Your task to perform on an android device: make emails show in primary in the gmail app Image 0: 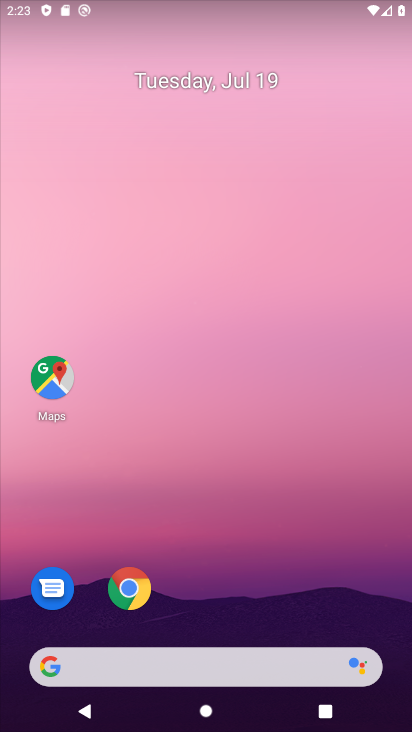
Step 0: drag from (198, 623) to (170, 263)
Your task to perform on an android device: make emails show in primary in the gmail app Image 1: 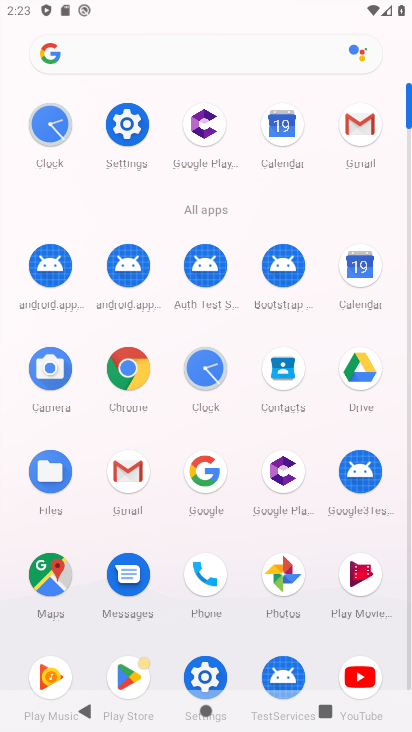
Step 1: click (356, 129)
Your task to perform on an android device: make emails show in primary in the gmail app Image 2: 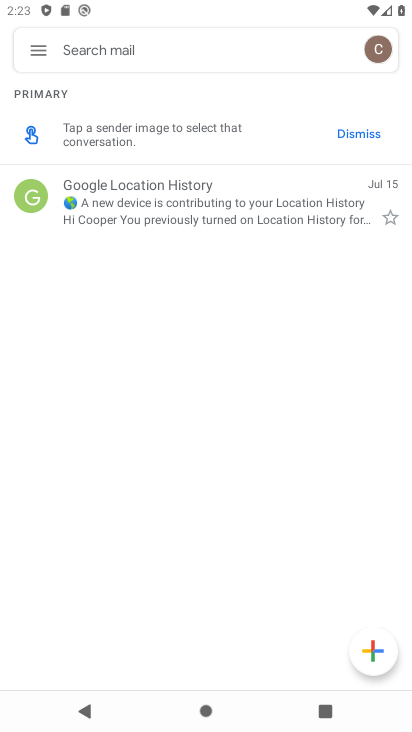
Step 2: click (35, 54)
Your task to perform on an android device: make emails show in primary in the gmail app Image 3: 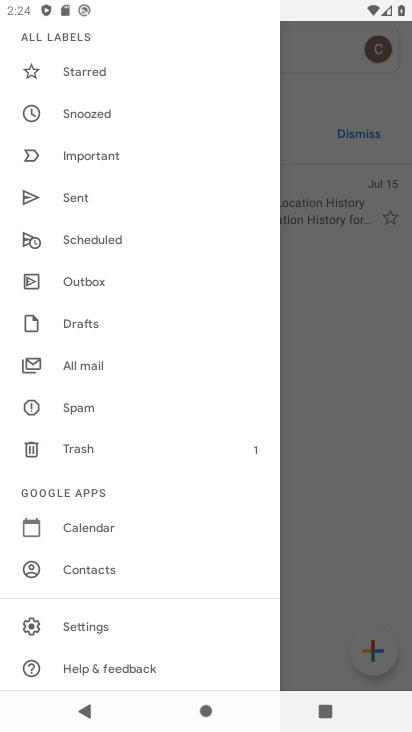
Step 3: click (75, 633)
Your task to perform on an android device: make emails show in primary in the gmail app Image 4: 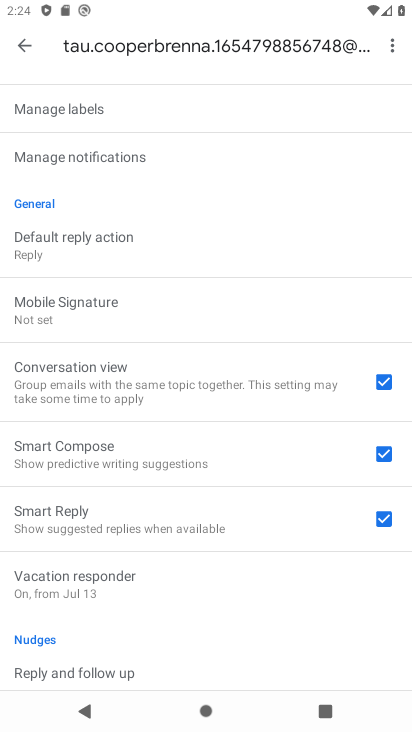
Step 4: drag from (177, 588) to (182, 326)
Your task to perform on an android device: make emails show in primary in the gmail app Image 5: 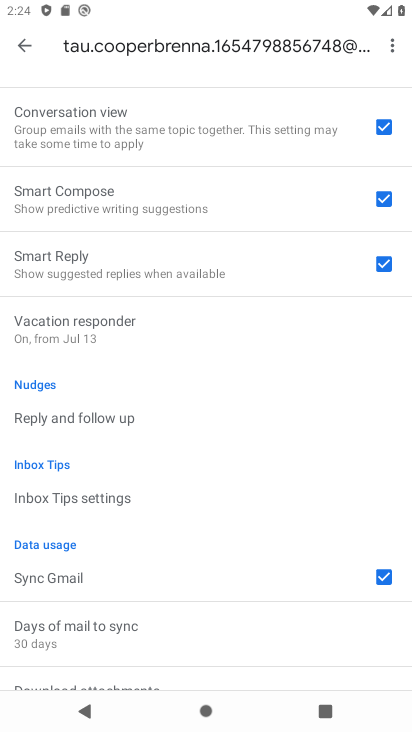
Step 5: drag from (181, 452) to (154, 544)
Your task to perform on an android device: make emails show in primary in the gmail app Image 6: 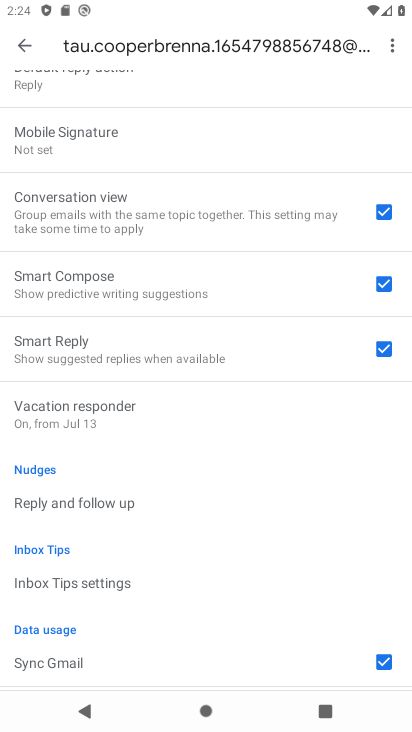
Step 6: drag from (167, 219) to (122, 579)
Your task to perform on an android device: make emails show in primary in the gmail app Image 7: 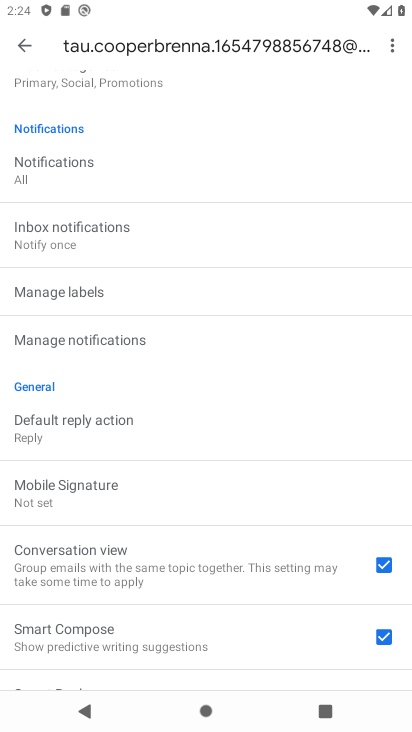
Step 7: drag from (87, 297) to (77, 434)
Your task to perform on an android device: make emails show in primary in the gmail app Image 8: 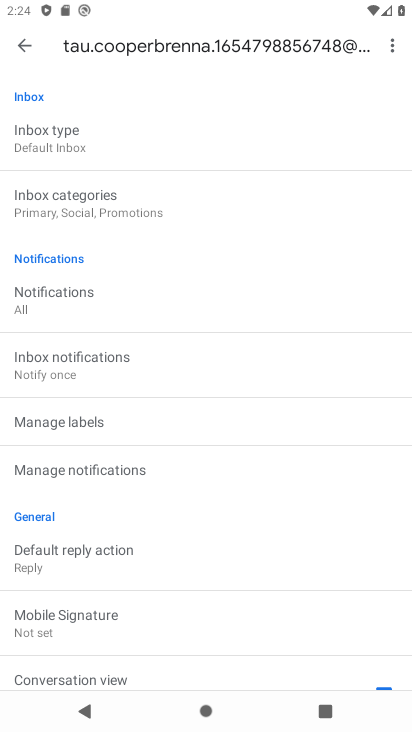
Step 8: click (81, 200)
Your task to perform on an android device: make emails show in primary in the gmail app Image 9: 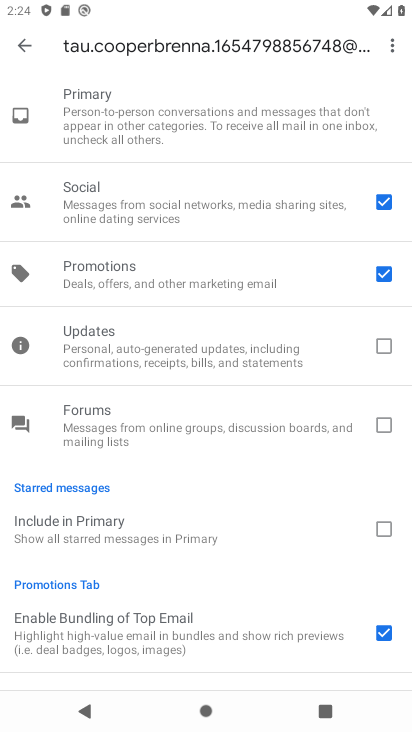
Step 9: click (387, 204)
Your task to perform on an android device: make emails show in primary in the gmail app Image 10: 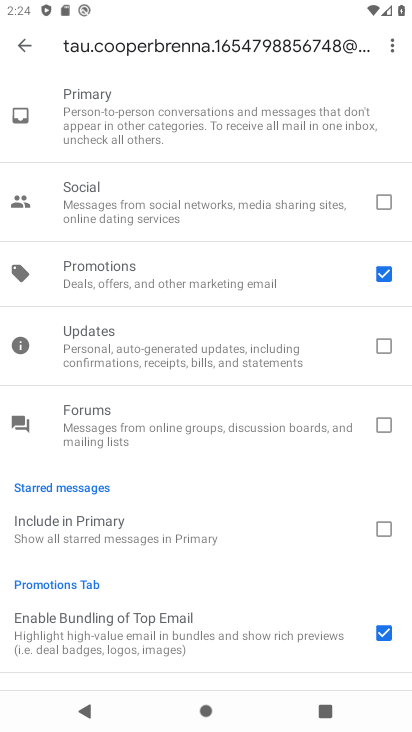
Step 10: click (385, 274)
Your task to perform on an android device: make emails show in primary in the gmail app Image 11: 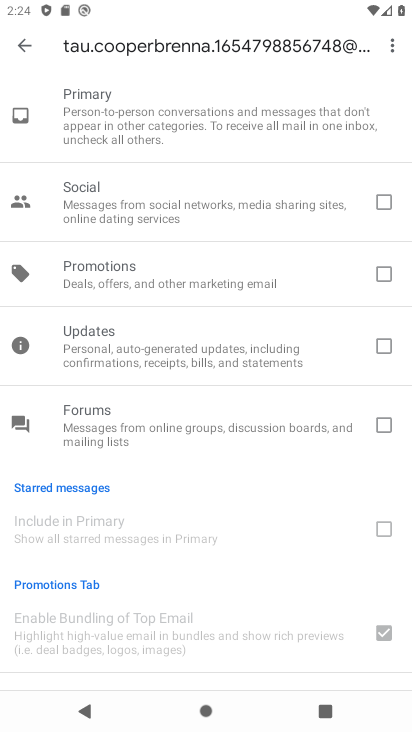
Step 11: click (28, 46)
Your task to perform on an android device: make emails show in primary in the gmail app Image 12: 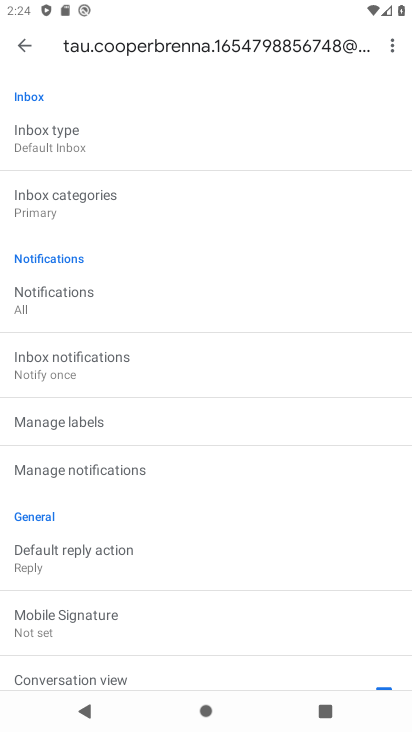
Step 12: task complete